Your task to perform on an android device: toggle wifi Image 0: 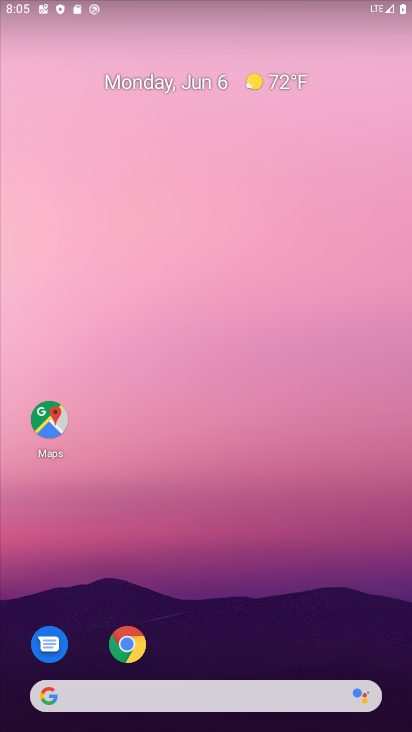
Step 0: drag from (208, 725) to (192, 211)
Your task to perform on an android device: toggle wifi Image 1: 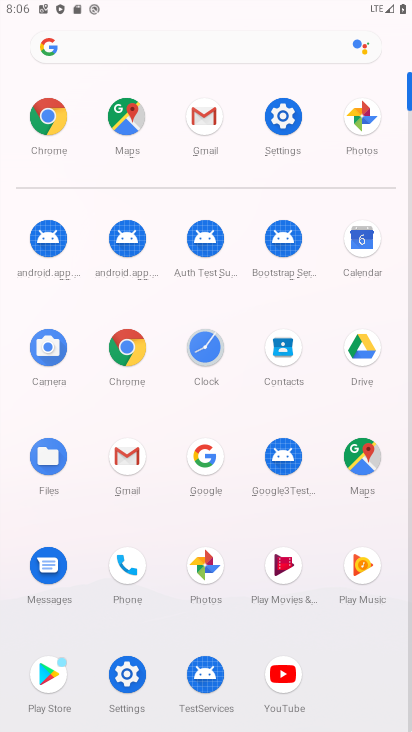
Step 1: click (281, 122)
Your task to perform on an android device: toggle wifi Image 2: 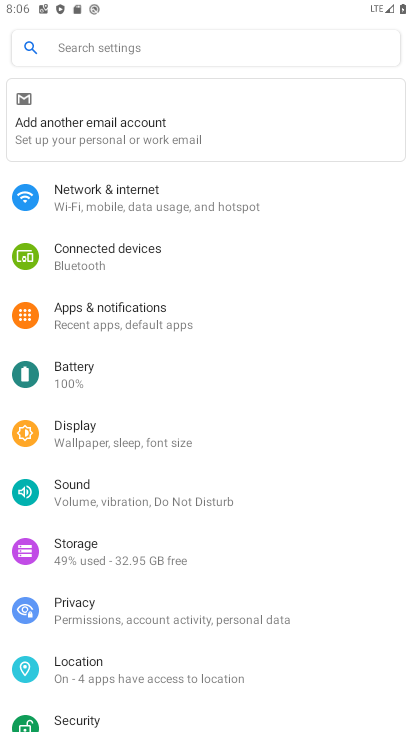
Step 2: click (106, 198)
Your task to perform on an android device: toggle wifi Image 3: 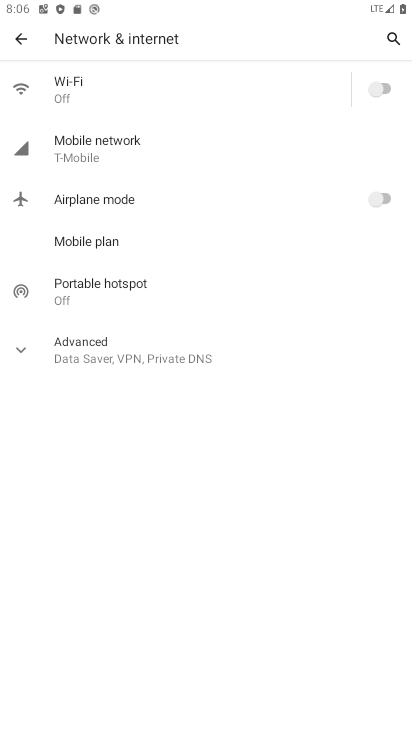
Step 3: click (98, 98)
Your task to perform on an android device: toggle wifi Image 4: 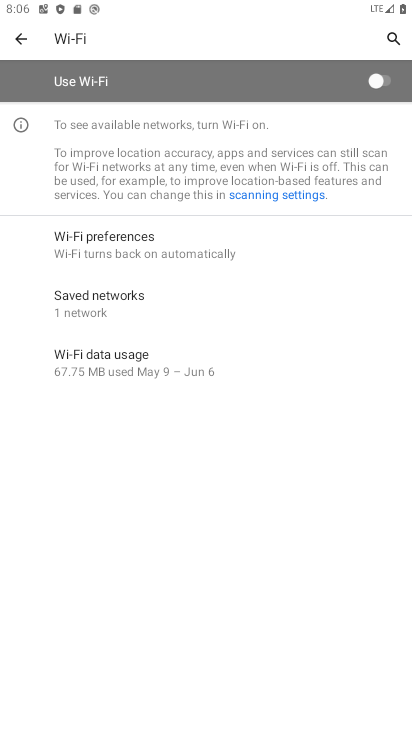
Step 4: task complete